Your task to perform on an android device: check storage Image 0: 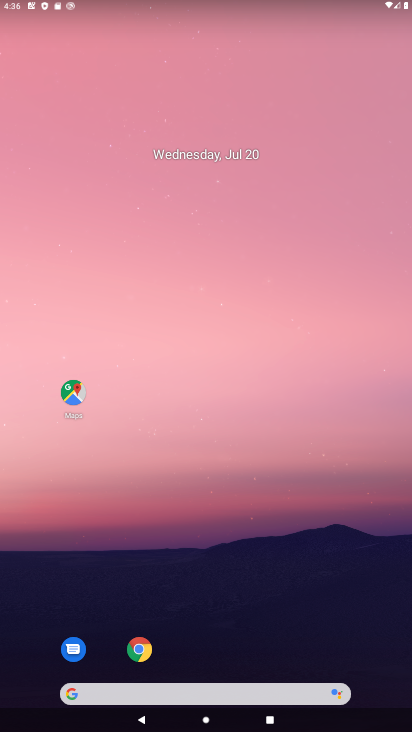
Step 0: drag from (205, 683) to (253, 293)
Your task to perform on an android device: check storage Image 1: 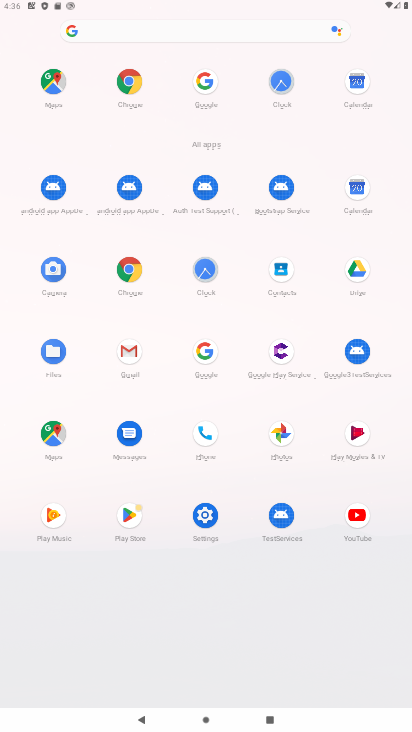
Step 1: click (204, 521)
Your task to perform on an android device: check storage Image 2: 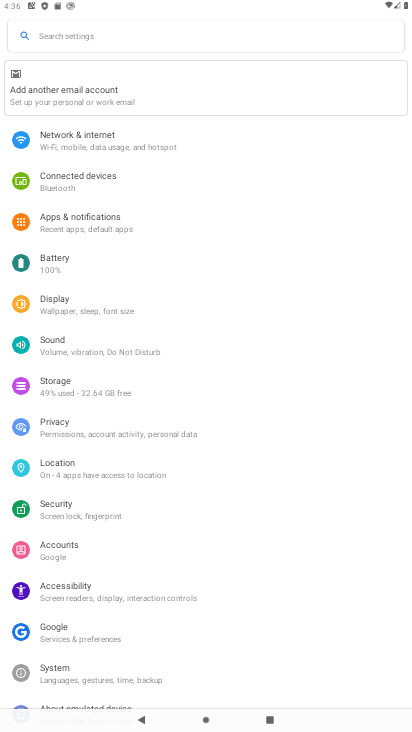
Step 2: click (68, 387)
Your task to perform on an android device: check storage Image 3: 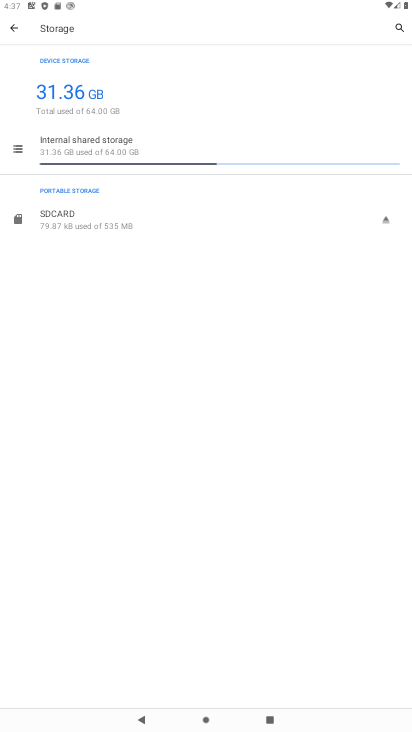
Step 3: task complete